Your task to perform on an android device: open app "Move to iOS" Image 0: 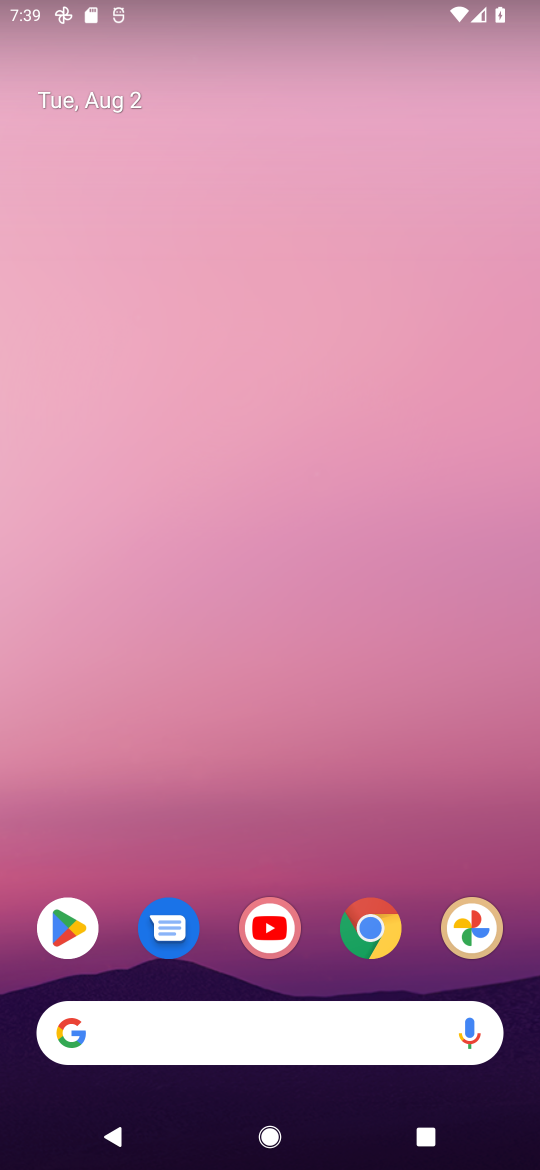
Step 0: click (77, 932)
Your task to perform on an android device: open app "Move to iOS" Image 1: 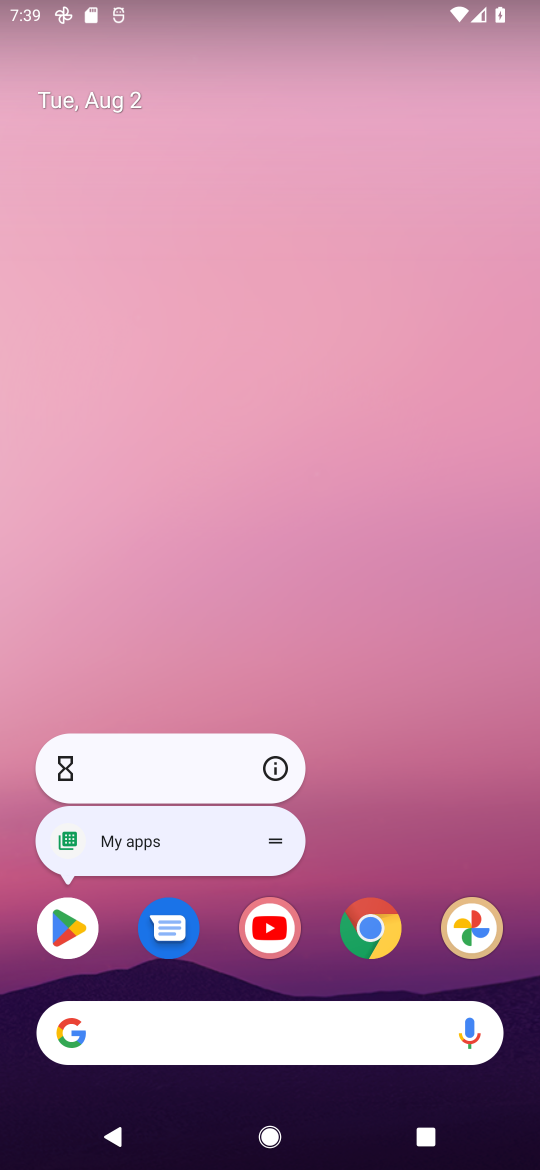
Step 1: click (77, 932)
Your task to perform on an android device: open app "Move to iOS" Image 2: 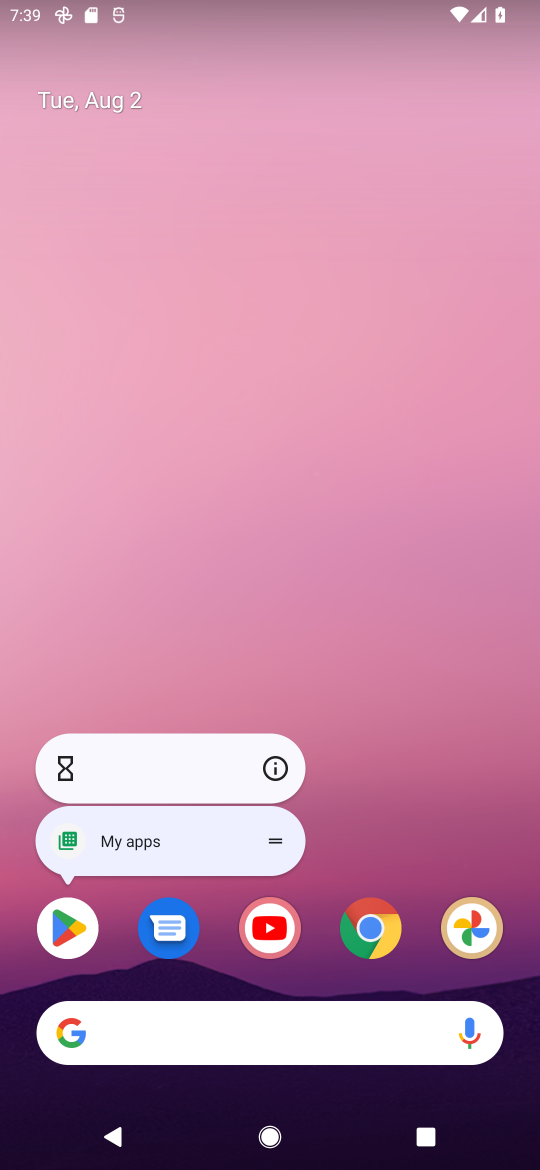
Step 2: click (77, 932)
Your task to perform on an android device: open app "Move to iOS" Image 3: 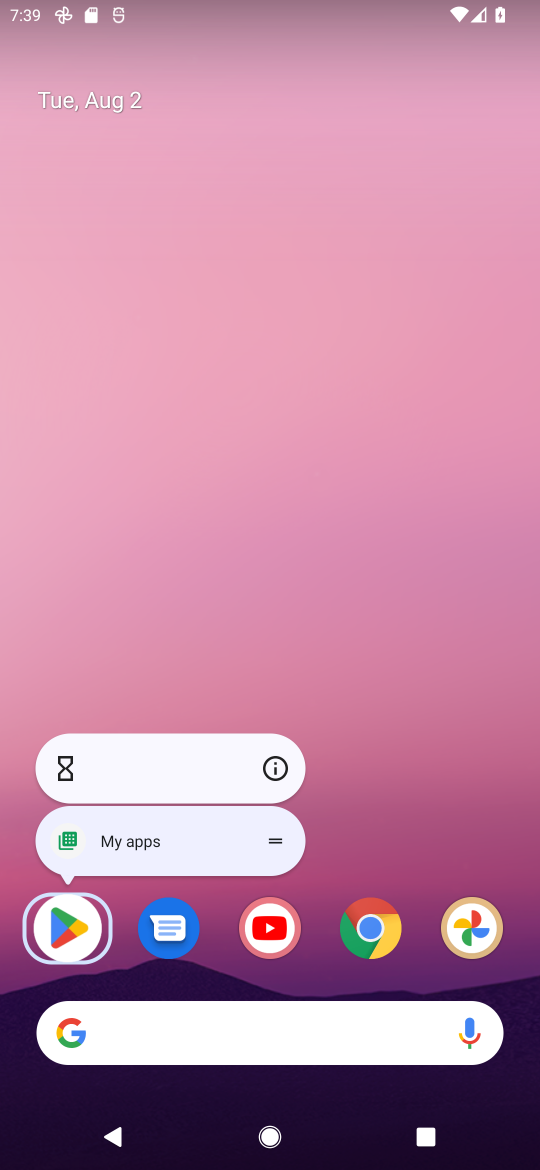
Step 3: click (59, 935)
Your task to perform on an android device: open app "Move to iOS" Image 4: 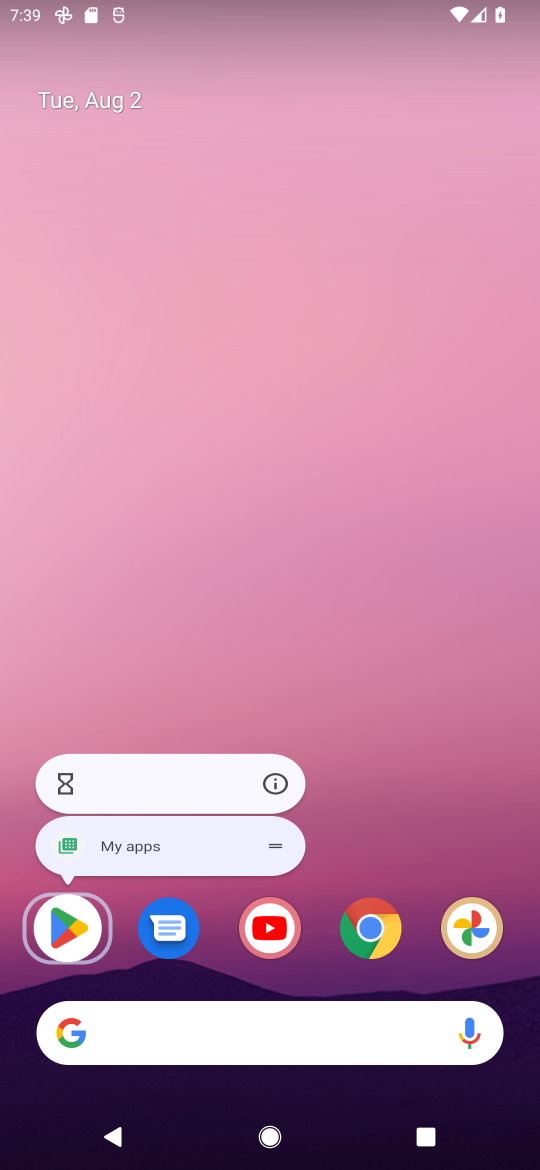
Step 4: click (50, 924)
Your task to perform on an android device: open app "Move to iOS" Image 5: 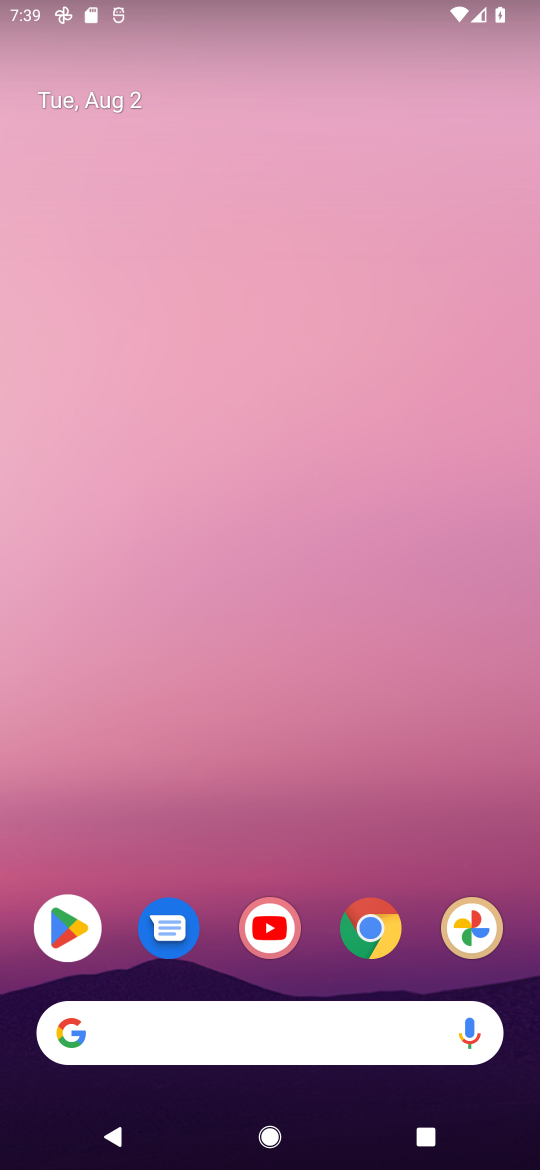
Step 5: click (72, 953)
Your task to perform on an android device: open app "Move to iOS" Image 6: 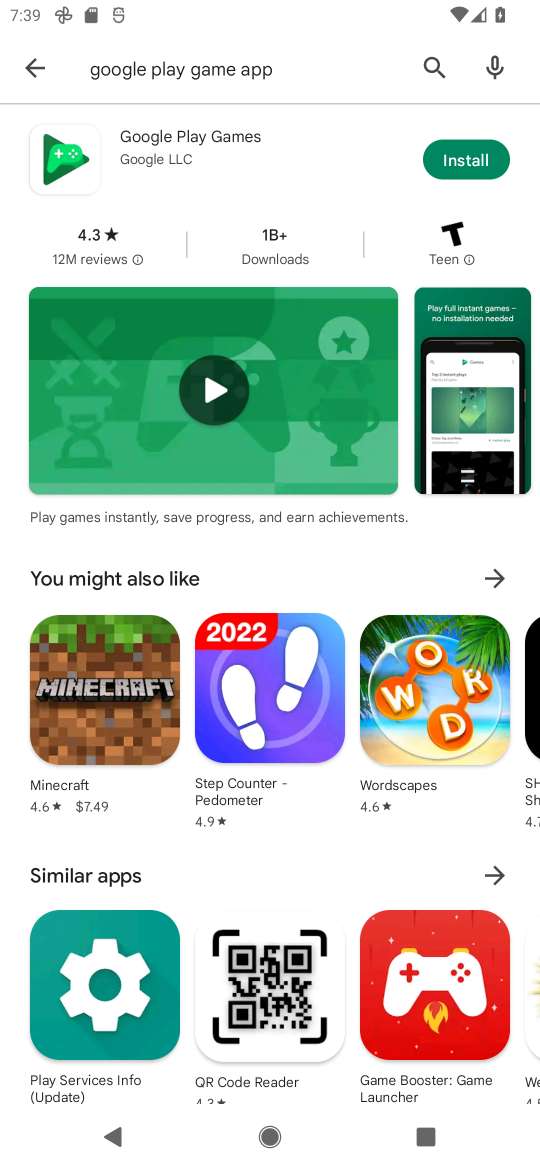
Step 6: click (446, 73)
Your task to perform on an android device: open app "Move to iOS" Image 7: 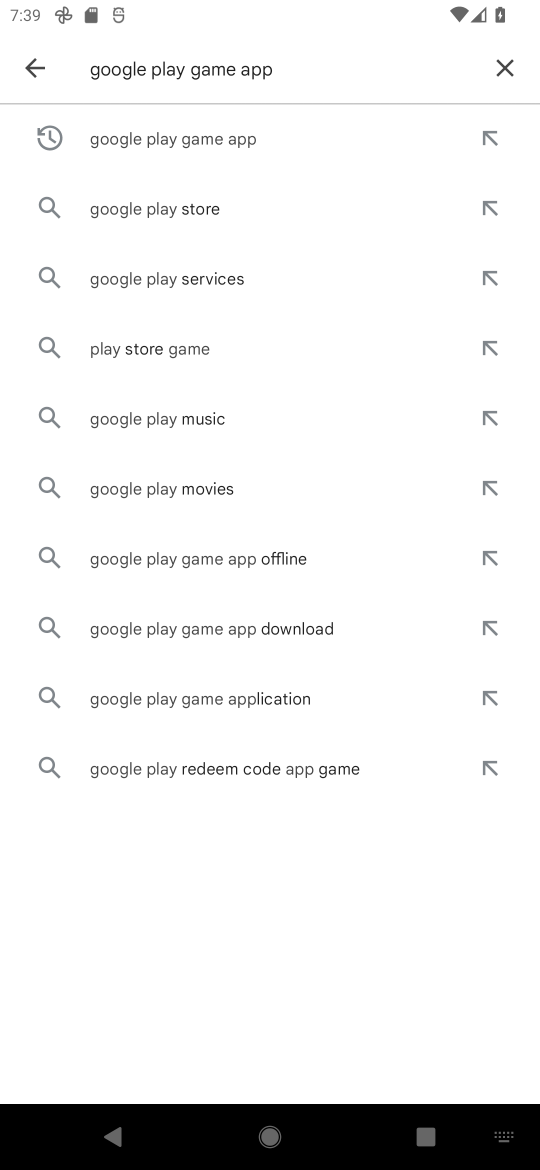
Step 7: click (505, 69)
Your task to perform on an android device: open app "Move to iOS" Image 8: 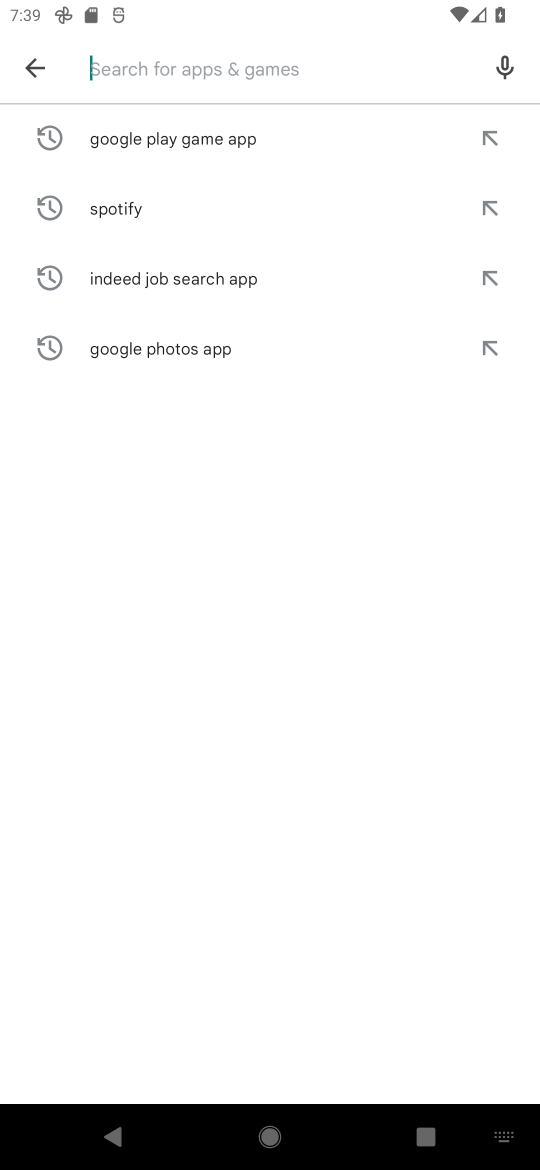
Step 8: type "move to ios "
Your task to perform on an android device: open app "Move to iOS" Image 9: 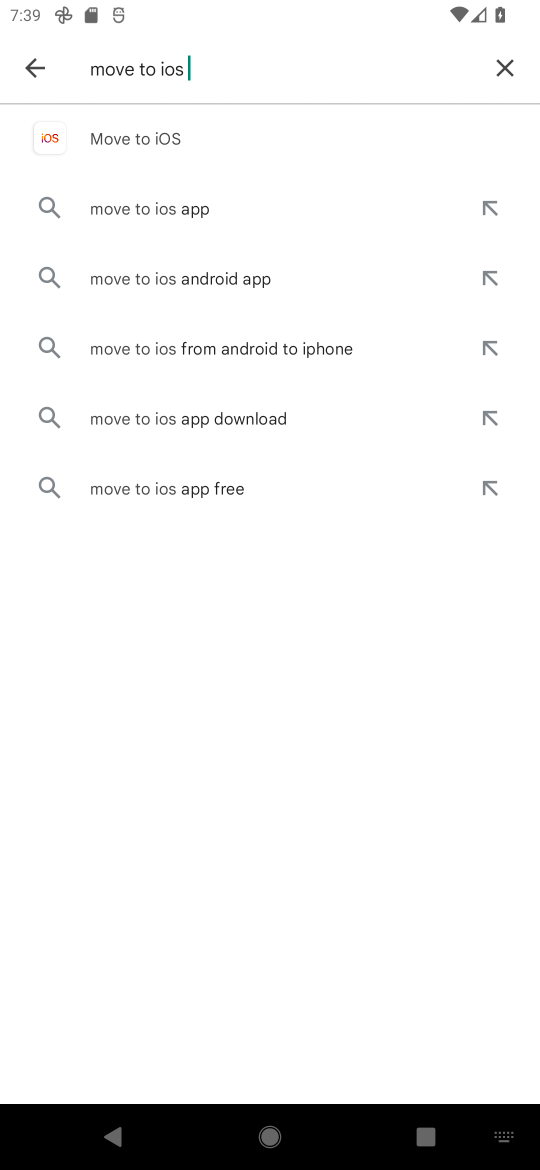
Step 9: click (123, 134)
Your task to perform on an android device: open app "Move to iOS" Image 10: 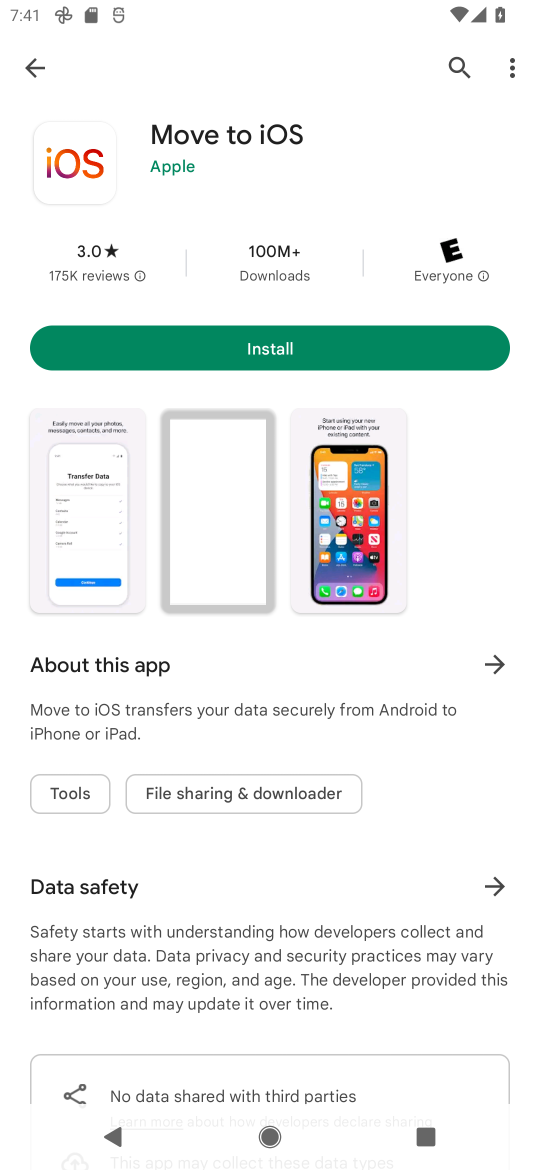
Step 10: task complete